Your task to perform on an android device: turn smart compose on in the gmail app Image 0: 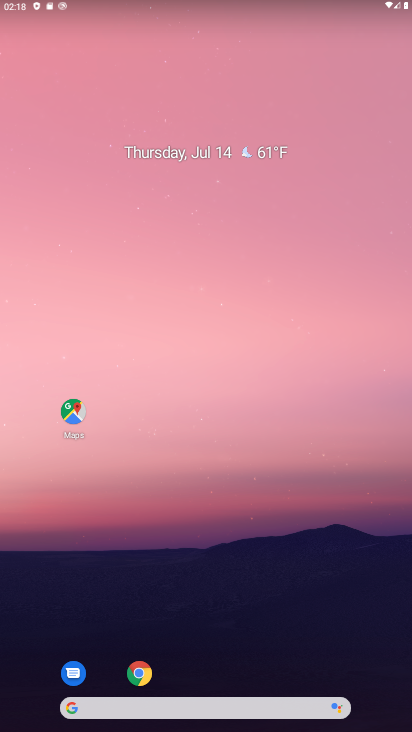
Step 0: press home button
Your task to perform on an android device: turn smart compose on in the gmail app Image 1: 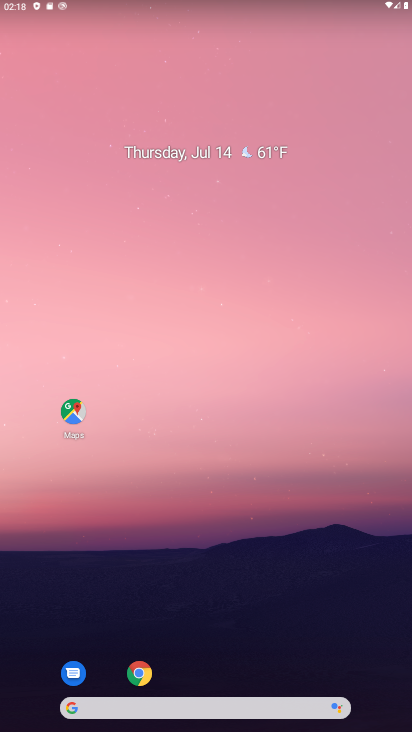
Step 1: drag from (277, 683) to (267, 406)
Your task to perform on an android device: turn smart compose on in the gmail app Image 2: 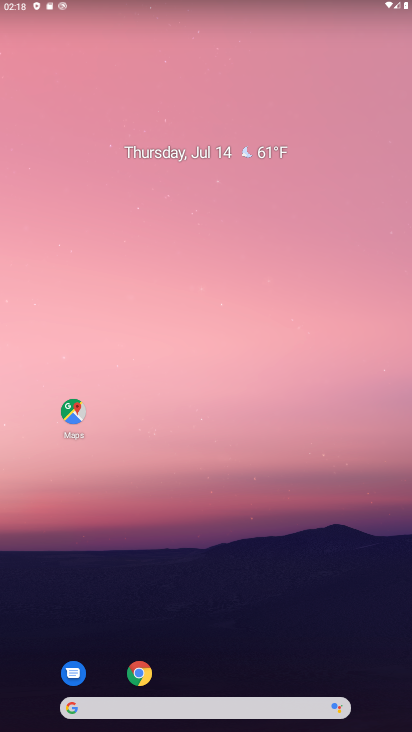
Step 2: drag from (313, 658) to (311, 0)
Your task to perform on an android device: turn smart compose on in the gmail app Image 3: 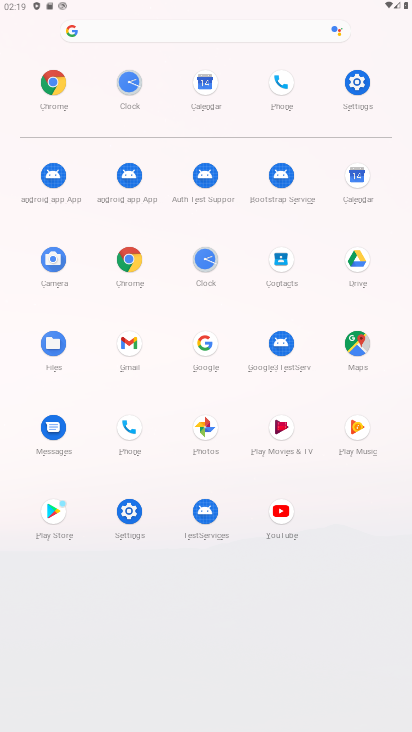
Step 3: click (142, 356)
Your task to perform on an android device: turn smart compose on in the gmail app Image 4: 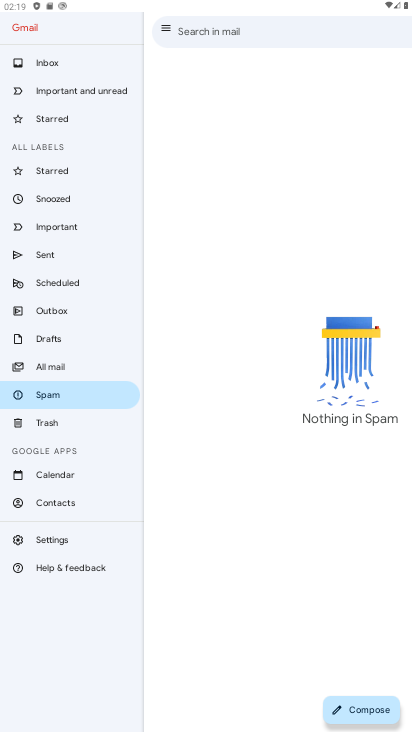
Step 4: click (65, 532)
Your task to perform on an android device: turn smart compose on in the gmail app Image 5: 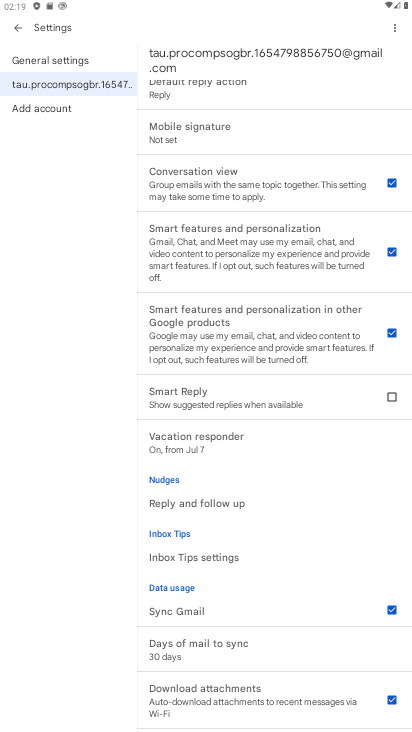
Step 5: drag from (274, 610) to (253, 446)
Your task to perform on an android device: turn smart compose on in the gmail app Image 6: 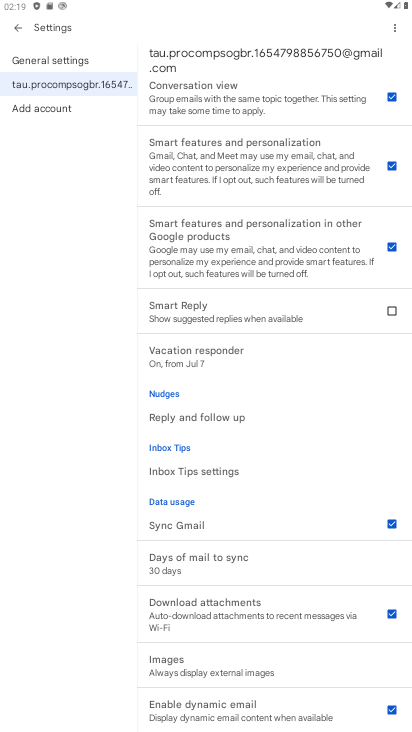
Step 6: drag from (333, 404) to (315, 224)
Your task to perform on an android device: turn smart compose on in the gmail app Image 7: 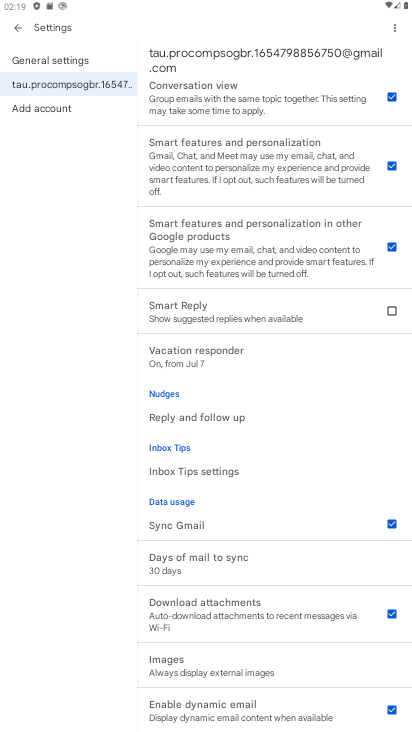
Step 7: click (357, 308)
Your task to perform on an android device: turn smart compose on in the gmail app Image 8: 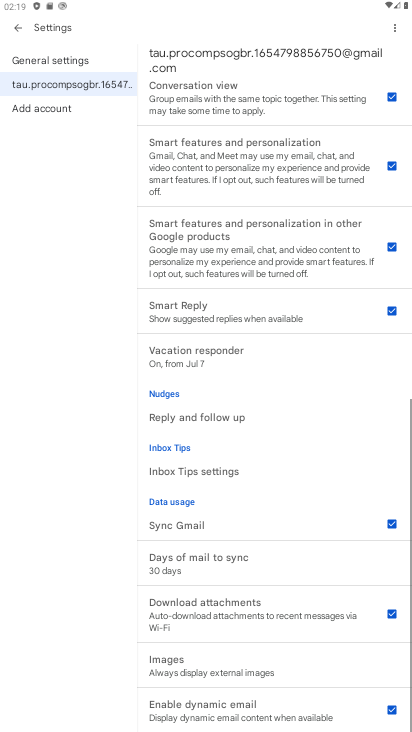
Step 8: task complete